Your task to perform on an android device: Open the stopwatch Image 0: 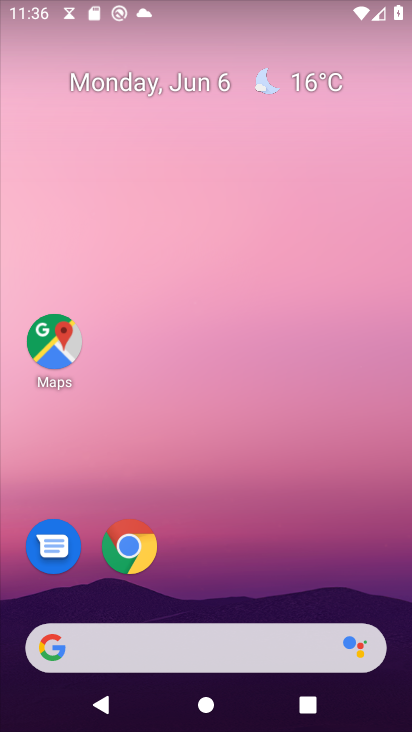
Step 0: drag from (214, 592) to (303, 64)
Your task to perform on an android device: Open the stopwatch Image 1: 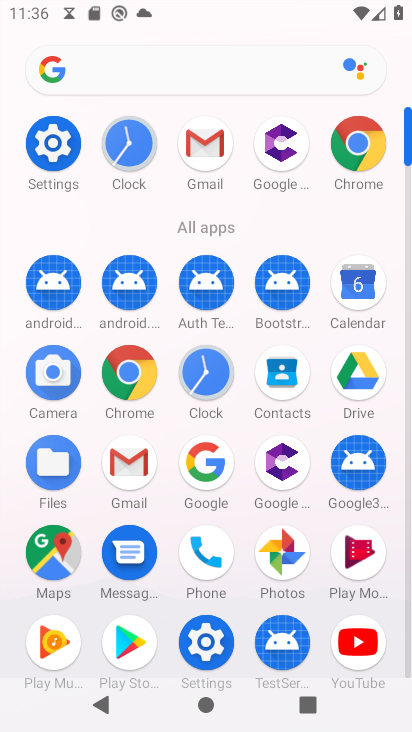
Step 1: click (203, 386)
Your task to perform on an android device: Open the stopwatch Image 2: 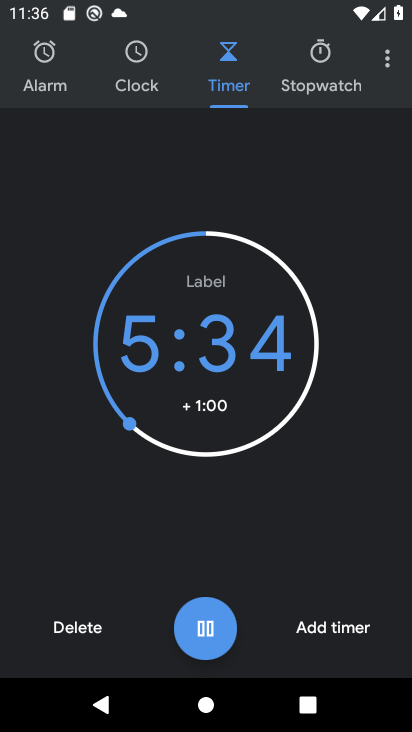
Step 2: click (313, 72)
Your task to perform on an android device: Open the stopwatch Image 3: 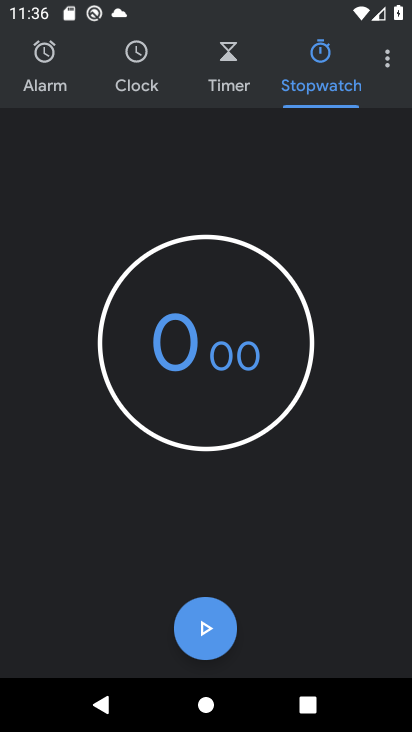
Step 3: click (198, 636)
Your task to perform on an android device: Open the stopwatch Image 4: 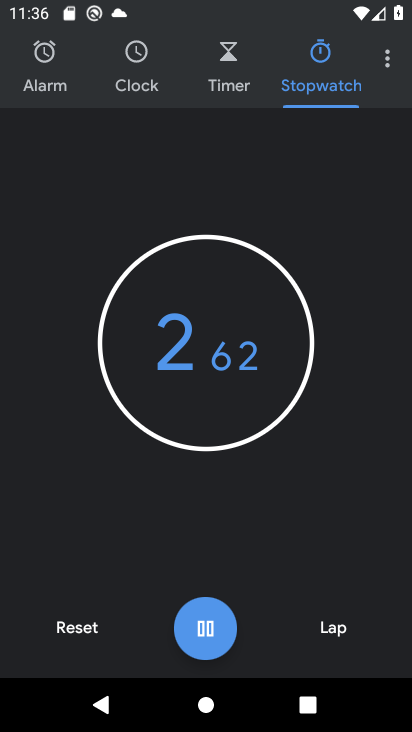
Step 4: task complete